Your task to perform on an android device: Open settings Image 0: 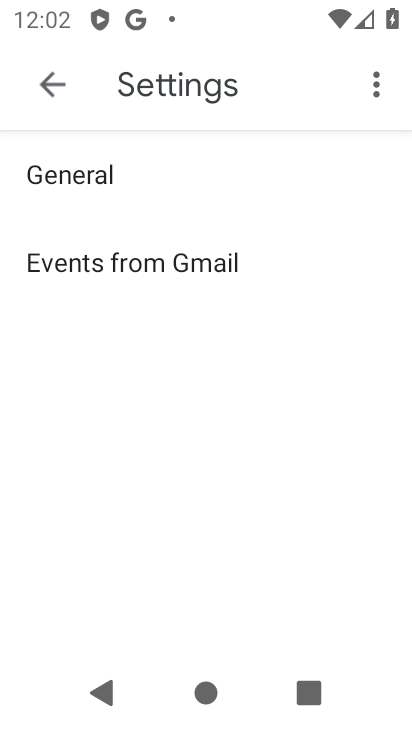
Step 0: press home button
Your task to perform on an android device: Open settings Image 1: 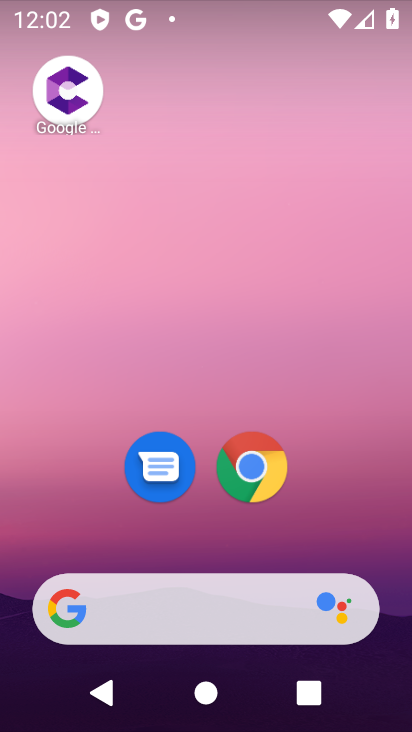
Step 1: drag from (306, 552) to (264, 30)
Your task to perform on an android device: Open settings Image 2: 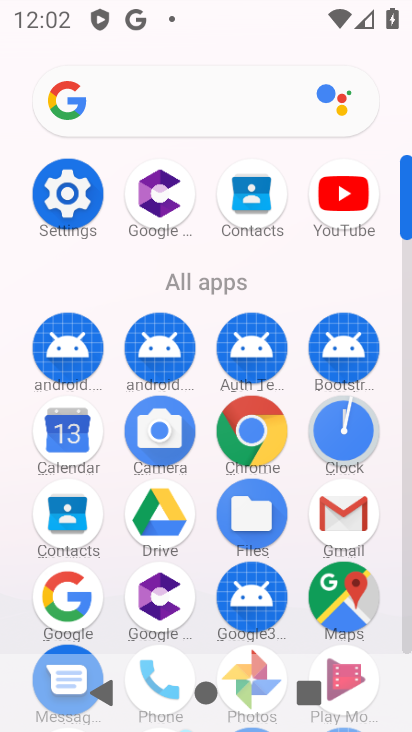
Step 2: click (63, 193)
Your task to perform on an android device: Open settings Image 3: 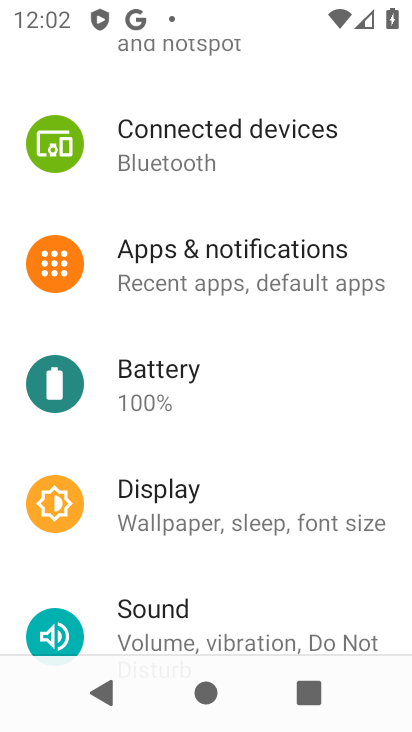
Step 3: task complete